Your task to perform on an android device: change text size in settings app Image 0: 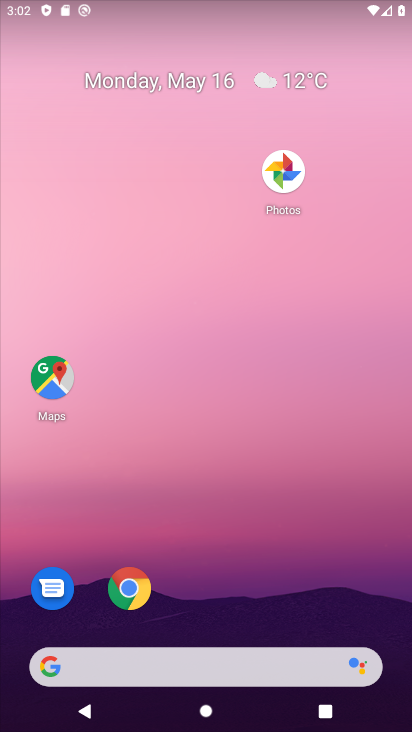
Step 0: drag from (190, 622) to (179, 34)
Your task to perform on an android device: change text size in settings app Image 1: 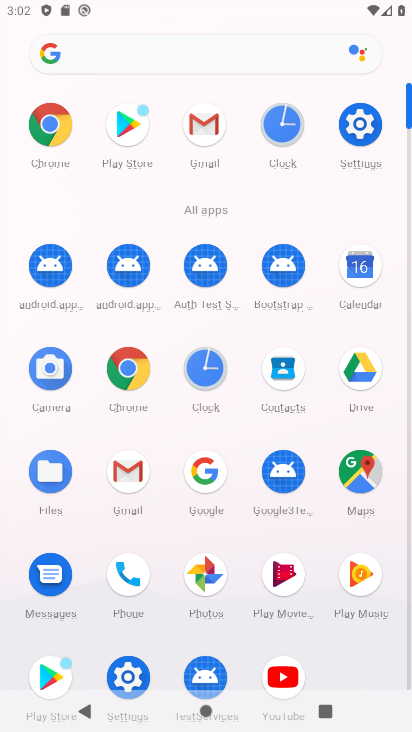
Step 1: click (349, 128)
Your task to perform on an android device: change text size in settings app Image 2: 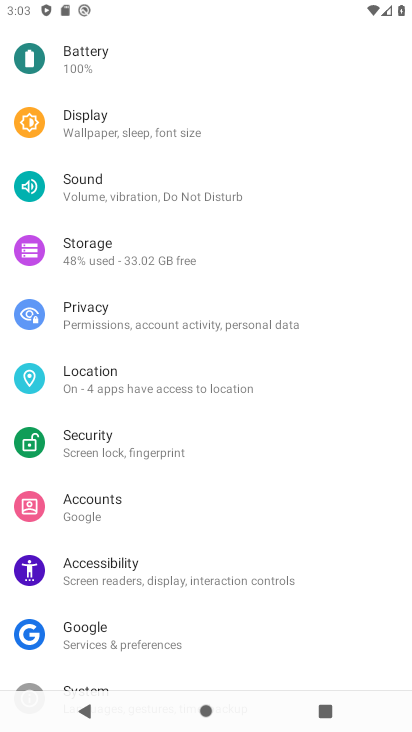
Step 2: click (155, 121)
Your task to perform on an android device: change text size in settings app Image 3: 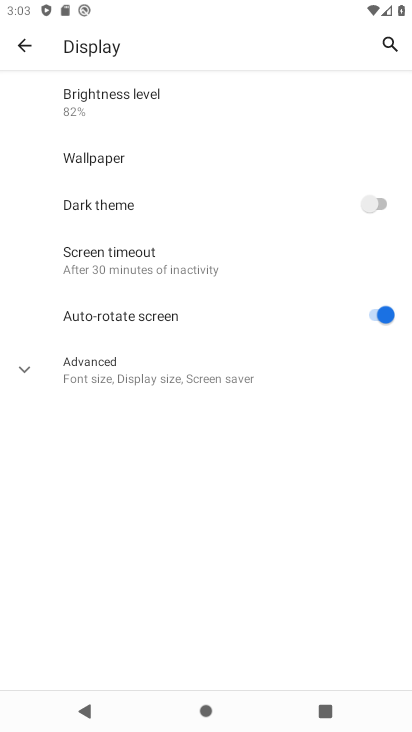
Step 3: click (133, 380)
Your task to perform on an android device: change text size in settings app Image 4: 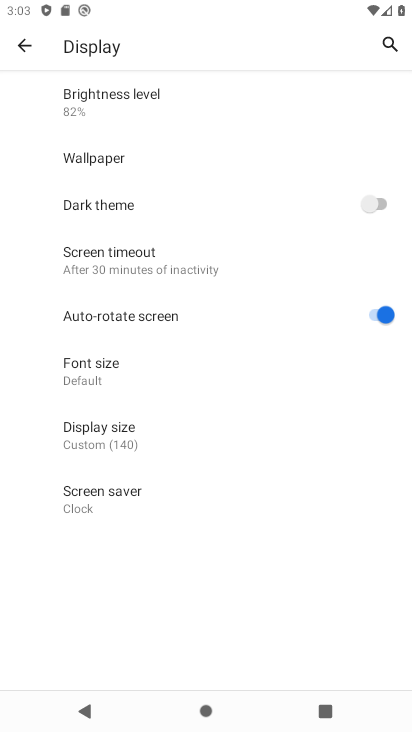
Step 4: click (133, 380)
Your task to perform on an android device: change text size in settings app Image 5: 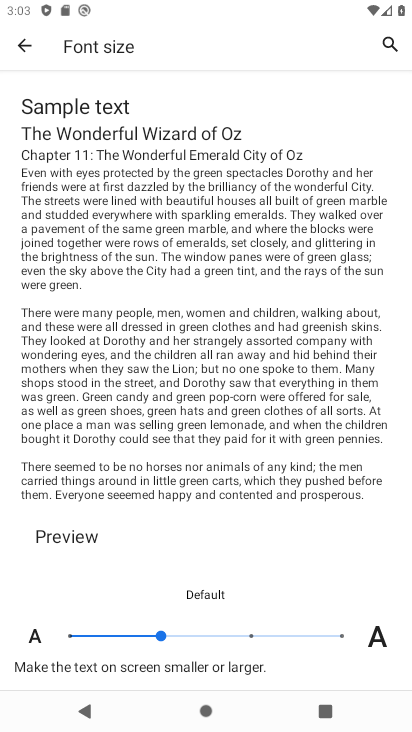
Step 5: click (154, 395)
Your task to perform on an android device: change text size in settings app Image 6: 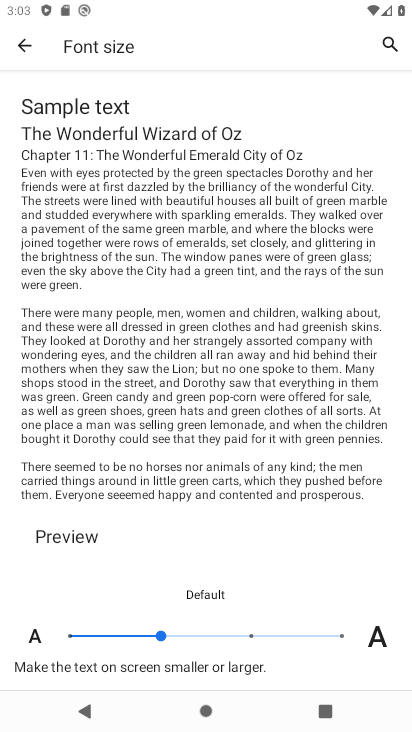
Step 6: click (70, 634)
Your task to perform on an android device: change text size in settings app Image 7: 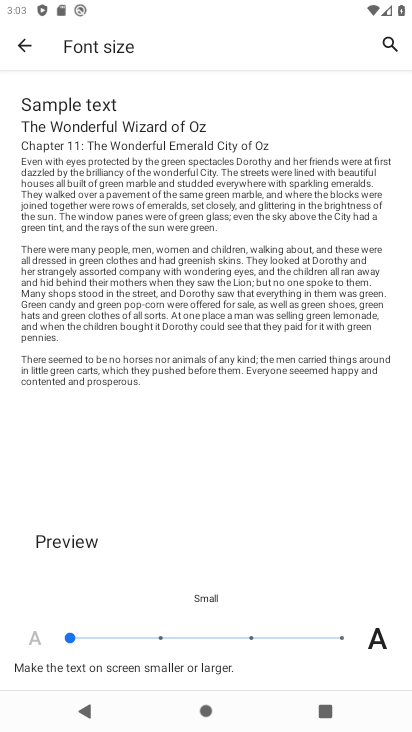
Step 7: task complete